Your task to perform on an android device: check android version Image 0: 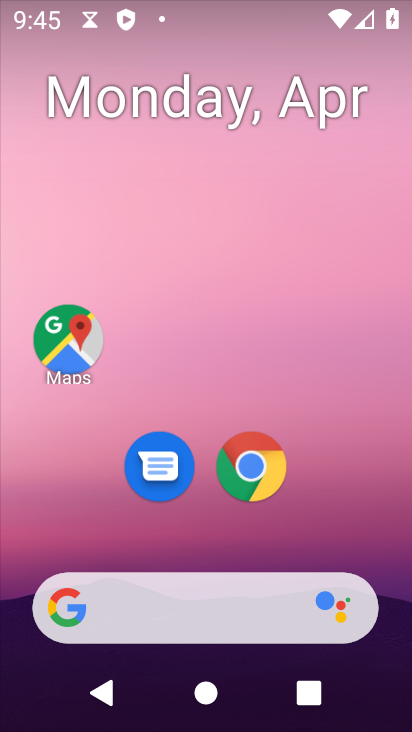
Step 0: drag from (224, 542) to (215, 83)
Your task to perform on an android device: check android version Image 1: 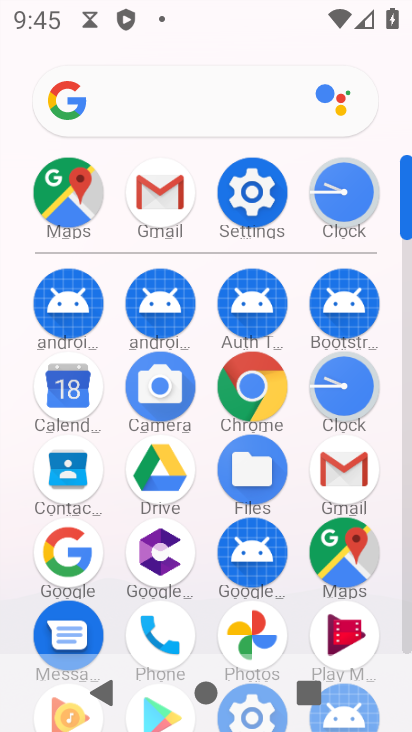
Step 1: click (255, 191)
Your task to perform on an android device: check android version Image 2: 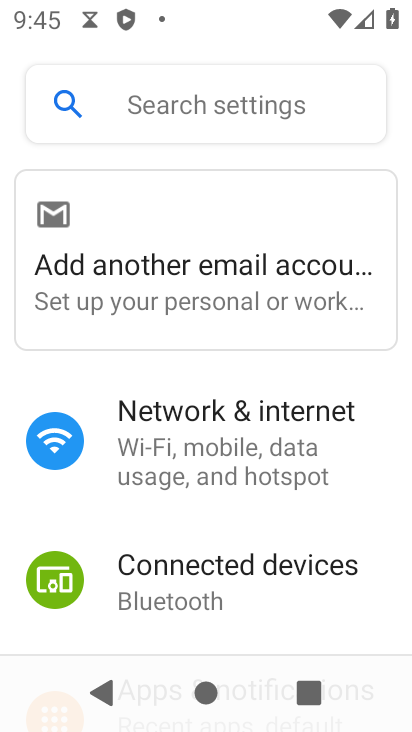
Step 2: drag from (233, 516) to (245, 372)
Your task to perform on an android device: check android version Image 3: 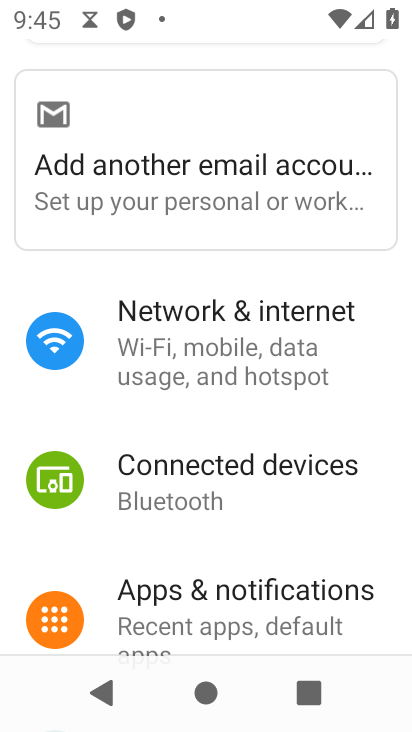
Step 3: drag from (245, 556) to (282, 426)
Your task to perform on an android device: check android version Image 4: 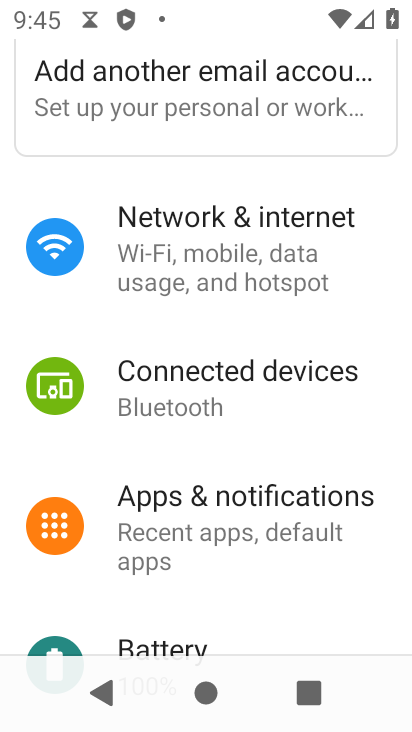
Step 4: drag from (252, 572) to (276, 438)
Your task to perform on an android device: check android version Image 5: 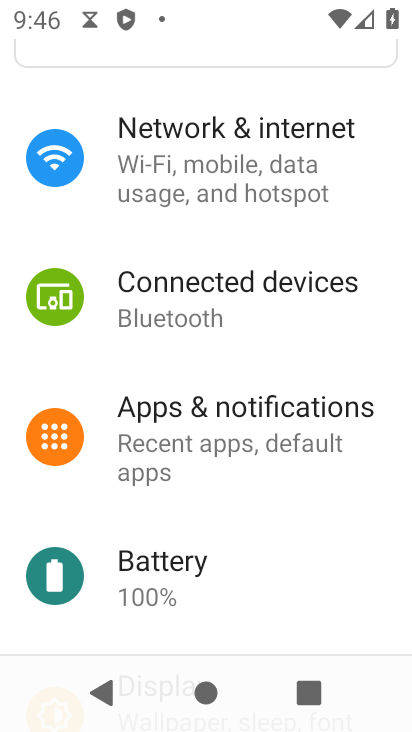
Step 5: drag from (249, 542) to (287, 417)
Your task to perform on an android device: check android version Image 6: 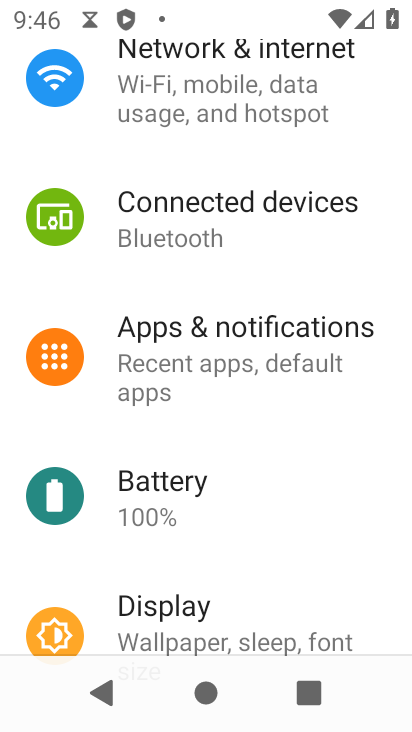
Step 6: drag from (259, 533) to (292, 426)
Your task to perform on an android device: check android version Image 7: 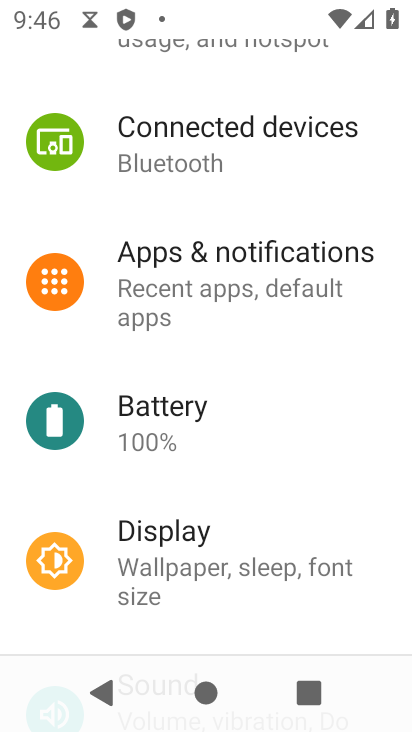
Step 7: drag from (282, 516) to (311, 442)
Your task to perform on an android device: check android version Image 8: 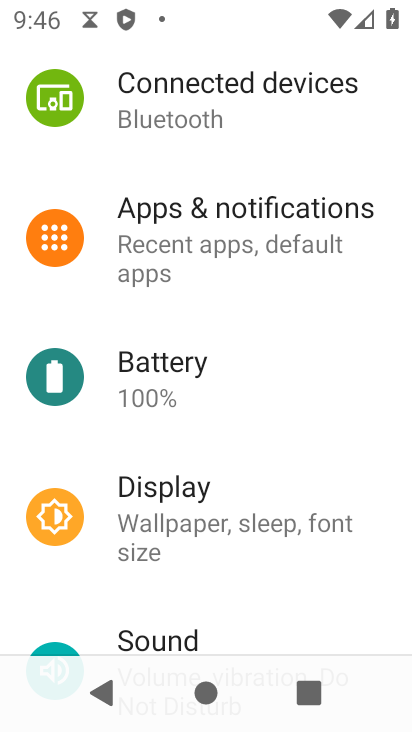
Step 8: drag from (245, 567) to (274, 445)
Your task to perform on an android device: check android version Image 9: 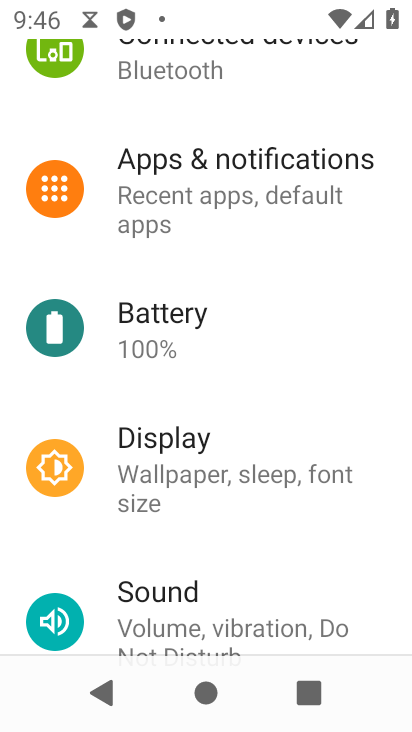
Step 9: drag from (249, 549) to (261, 429)
Your task to perform on an android device: check android version Image 10: 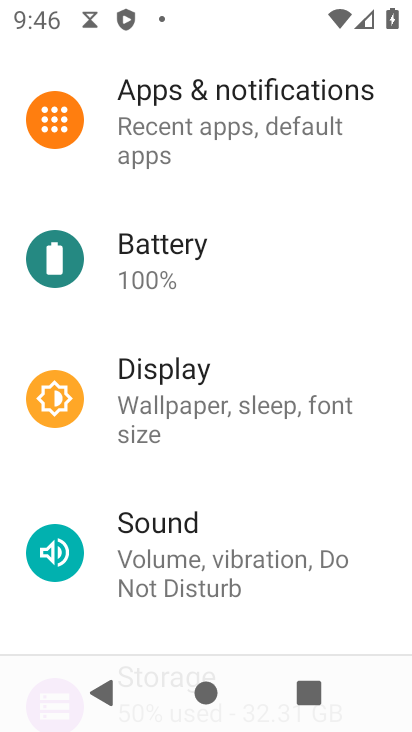
Step 10: drag from (226, 501) to (305, 313)
Your task to perform on an android device: check android version Image 11: 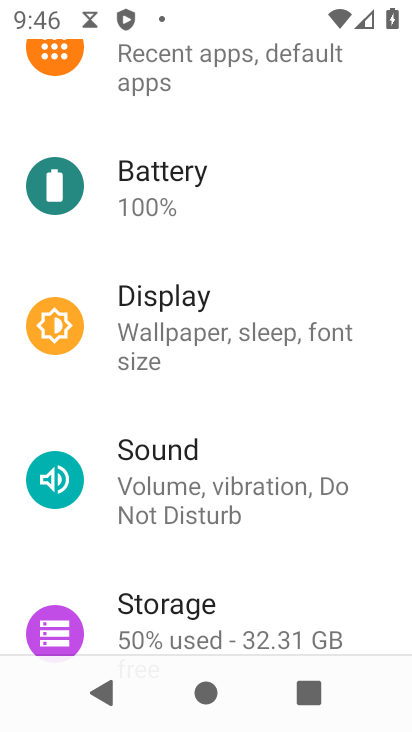
Step 11: drag from (234, 558) to (313, 400)
Your task to perform on an android device: check android version Image 12: 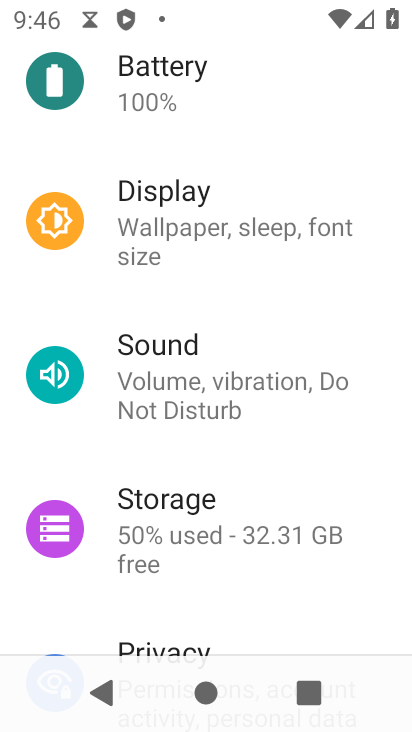
Step 12: drag from (274, 474) to (328, 373)
Your task to perform on an android device: check android version Image 13: 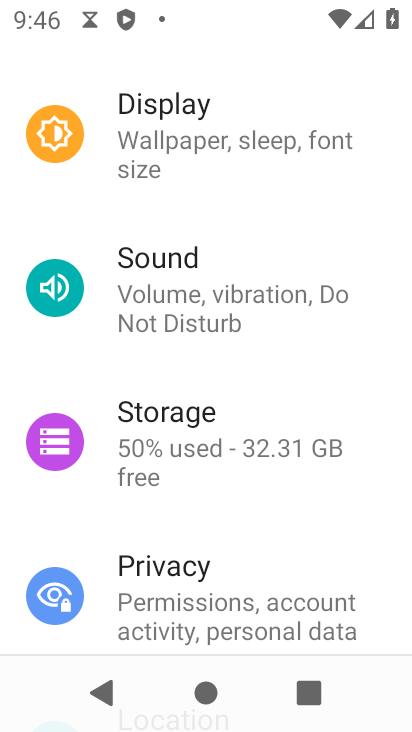
Step 13: drag from (265, 525) to (331, 390)
Your task to perform on an android device: check android version Image 14: 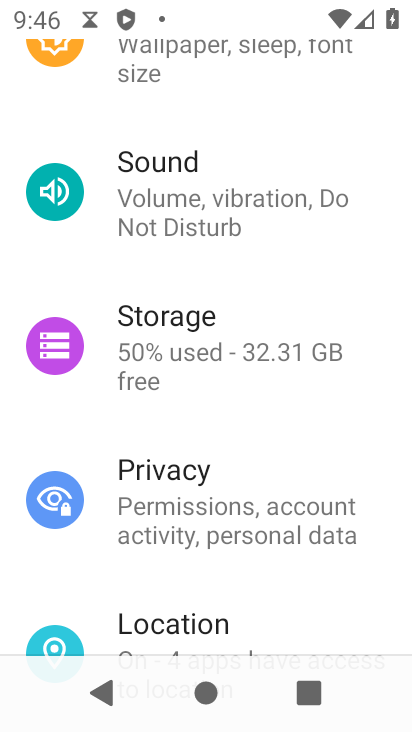
Step 14: drag from (271, 466) to (319, 306)
Your task to perform on an android device: check android version Image 15: 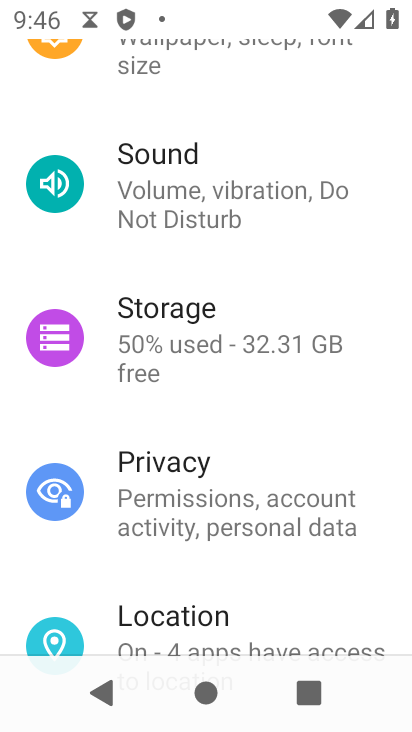
Step 15: drag from (237, 556) to (282, 426)
Your task to perform on an android device: check android version Image 16: 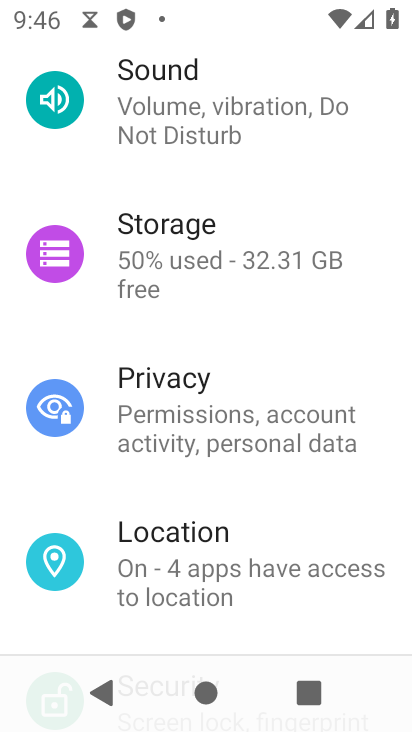
Step 16: drag from (257, 508) to (318, 396)
Your task to perform on an android device: check android version Image 17: 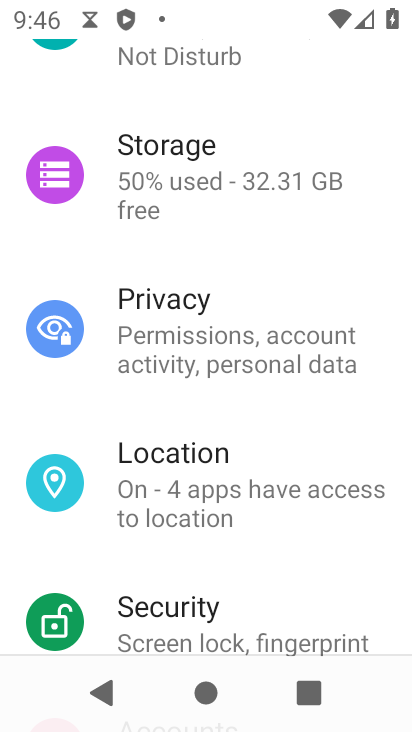
Step 17: drag from (263, 560) to (339, 412)
Your task to perform on an android device: check android version Image 18: 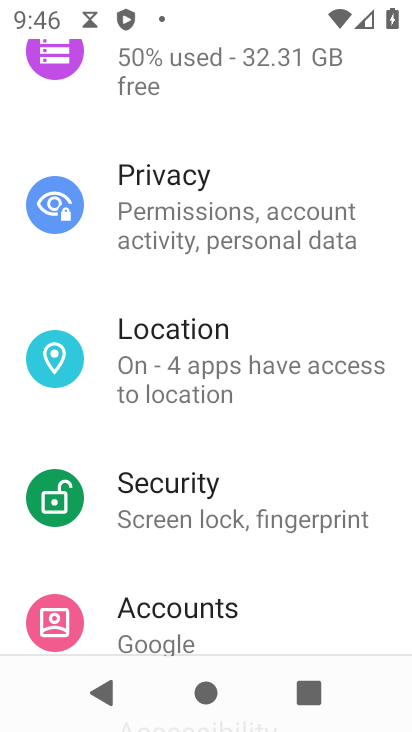
Step 18: drag from (289, 472) to (368, 328)
Your task to perform on an android device: check android version Image 19: 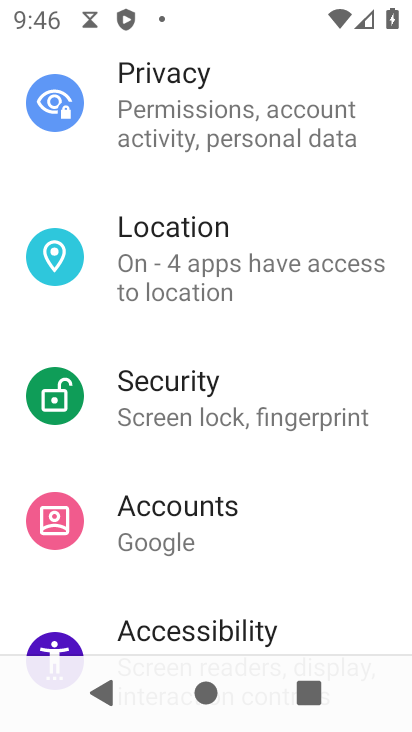
Step 19: drag from (257, 531) to (348, 400)
Your task to perform on an android device: check android version Image 20: 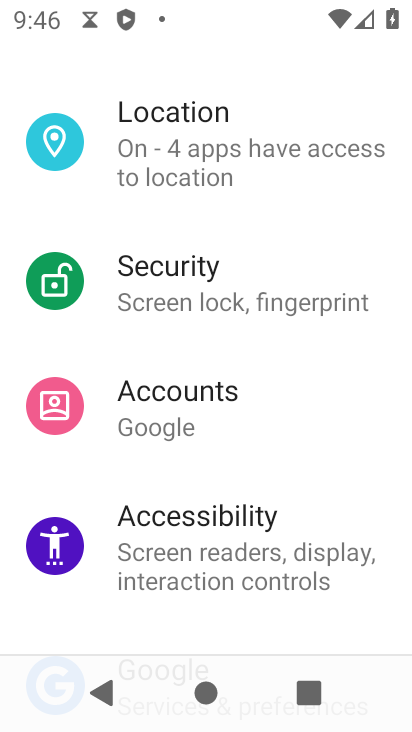
Step 20: drag from (261, 619) to (303, 467)
Your task to perform on an android device: check android version Image 21: 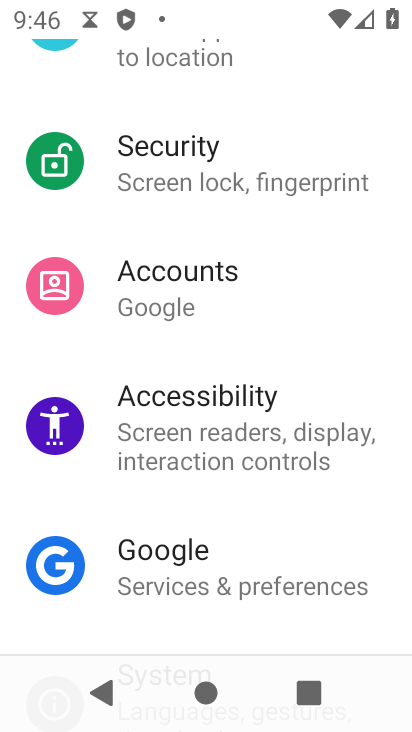
Step 21: drag from (246, 552) to (320, 394)
Your task to perform on an android device: check android version Image 22: 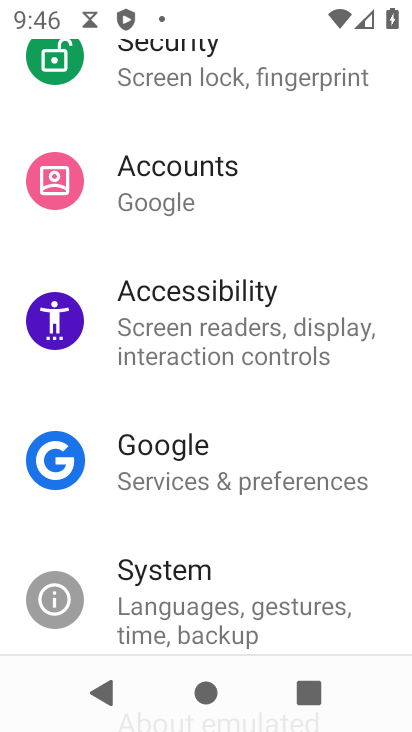
Step 22: drag from (253, 542) to (306, 388)
Your task to perform on an android device: check android version Image 23: 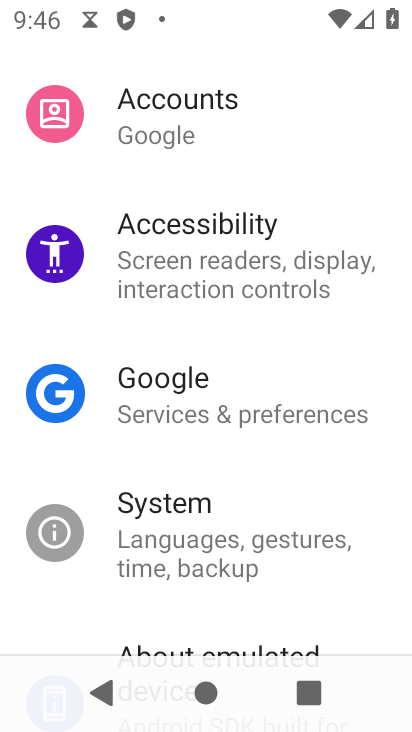
Step 23: drag from (252, 585) to (331, 431)
Your task to perform on an android device: check android version Image 24: 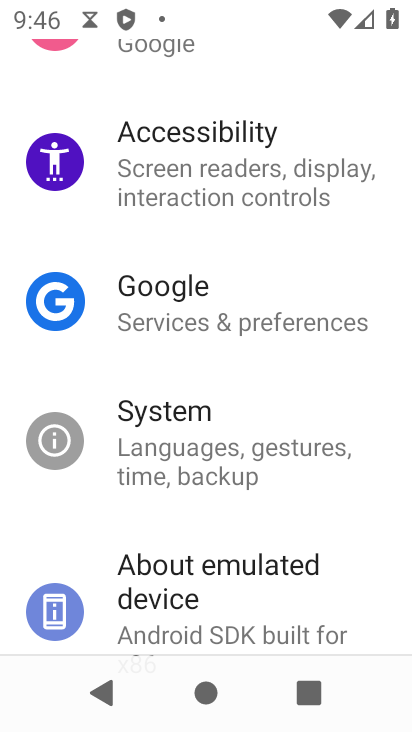
Step 24: click (240, 562)
Your task to perform on an android device: check android version Image 25: 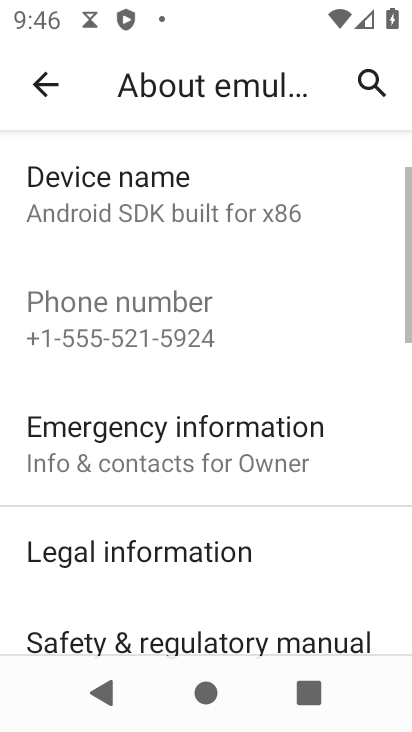
Step 25: drag from (232, 596) to (267, 371)
Your task to perform on an android device: check android version Image 26: 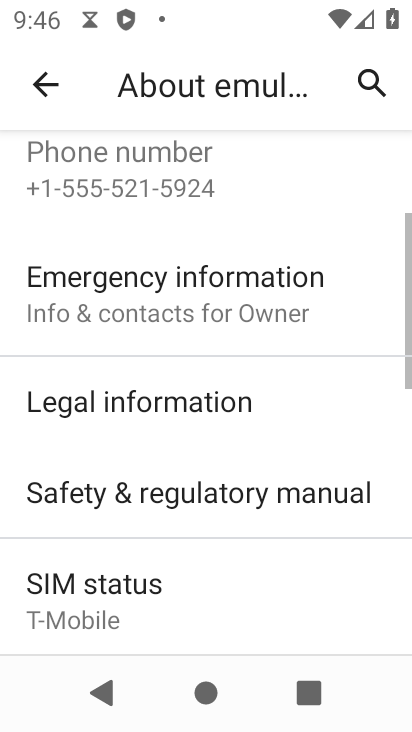
Step 26: drag from (201, 576) to (255, 415)
Your task to perform on an android device: check android version Image 27: 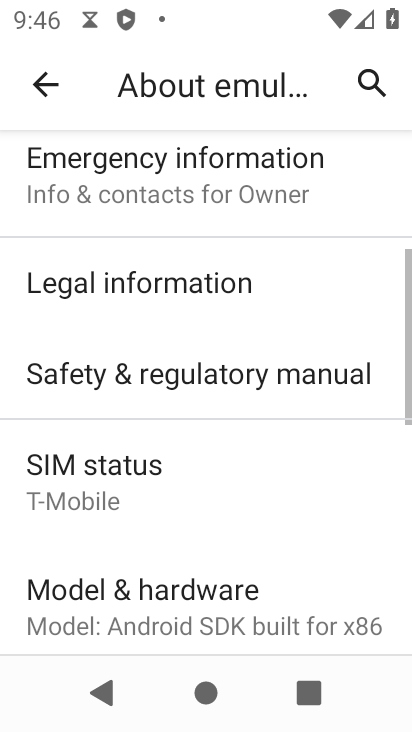
Step 27: drag from (220, 518) to (264, 444)
Your task to perform on an android device: check android version Image 28: 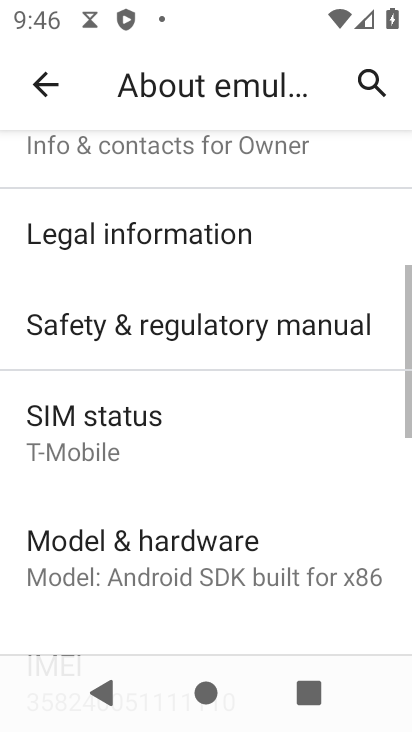
Step 28: drag from (199, 576) to (264, 452)
Your task to perform on an android device: check android version Image 29: 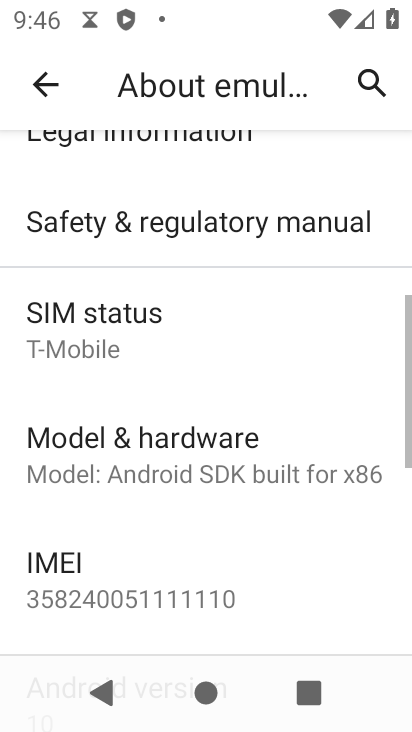
Step 29: drag from (200, 570) to (281, 427)
Your task to perform on an android device: check android version Image 30: 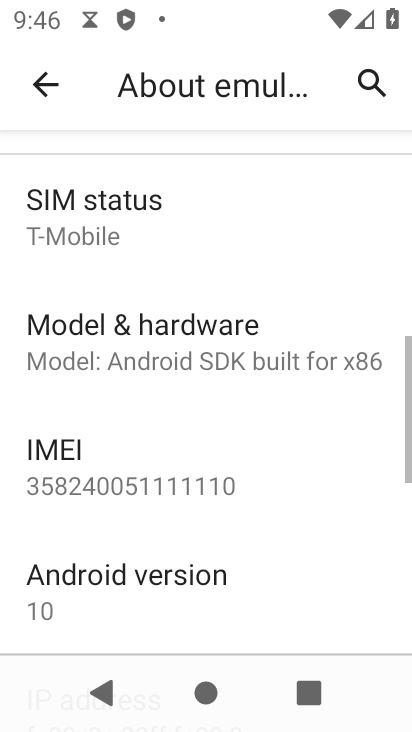
Step 30: drag from (197, 555) to (256, 458)
Your task to perform on an android device: check android version Image 31: 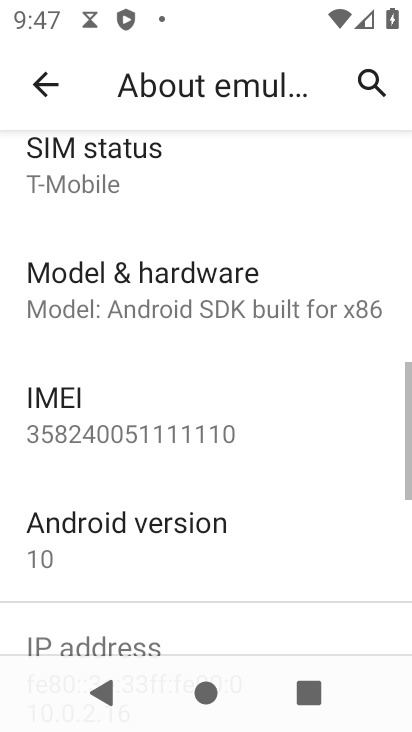
Step 31: click (192, 524)
Your task to perform on an android device: check android version Image 32: 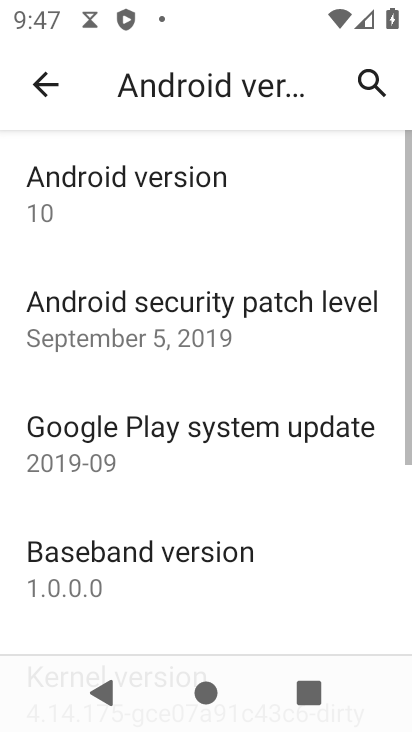
Step 32: task complete